Your task to perform on an android device: When is my next meeting? Image 0: 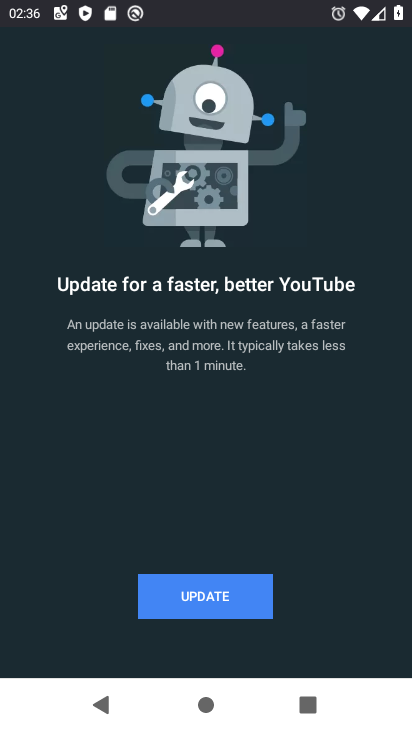
Step 0: press home button
Your task to perform on an android device: When is my next meeting? Image 1: 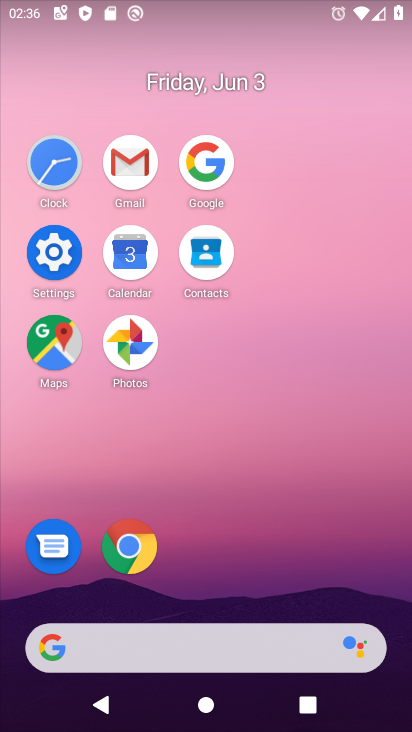
Step 1: click (118, 267)
Your task to perform on an android device: When is my next meeting? Image 2: 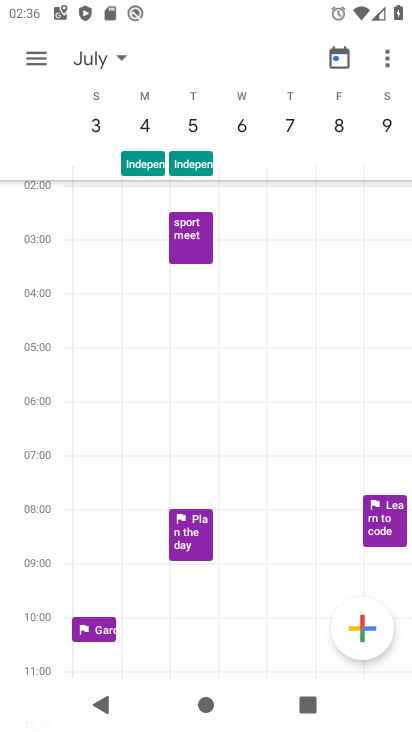
Step 2: click (146, 123)
Your task to perform on an android device: When is my next meeting? Image 3: 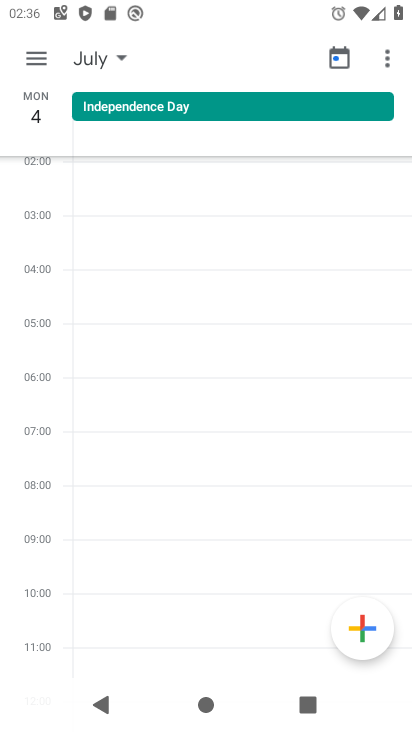
Step 3: click (95, 64)
Your task to perform on an android device: When is my next meeting? Image 4: 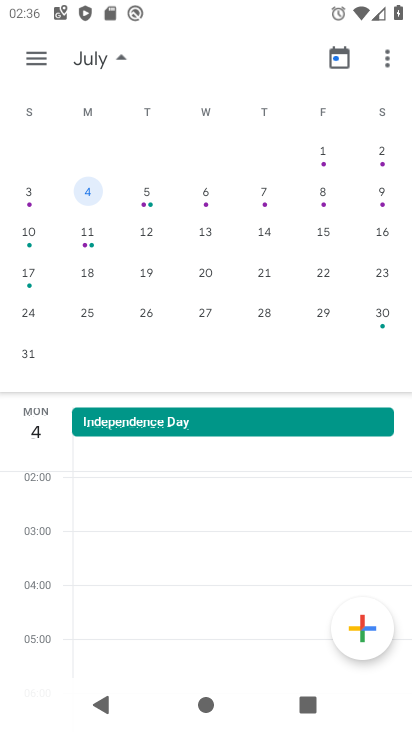
Step 4: drag from (39, 217) to (372, 276)
Your task to perform on an android device: When is my next meeting? Image 5: 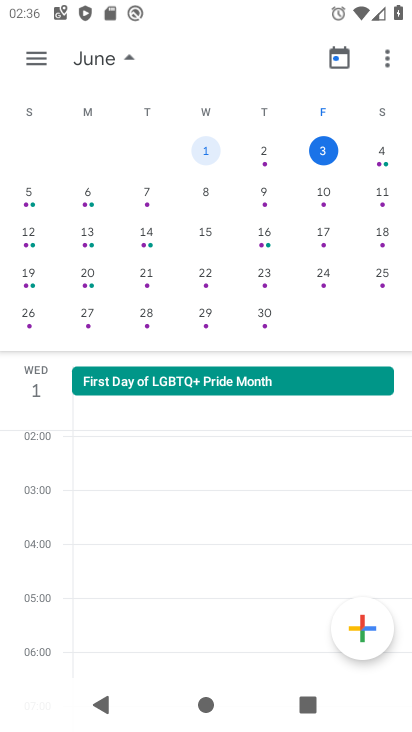
Step 5: drag from (60, 213) to (187, 231)
Your task to perform on an android device: When is my next meeting? Image 6: 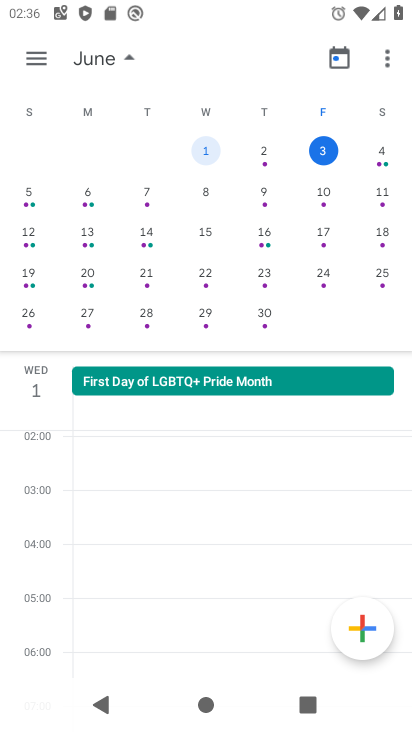
Step 6: click (373, 152)
Your task to perform on an android device: When is my next meeting? Image 7: 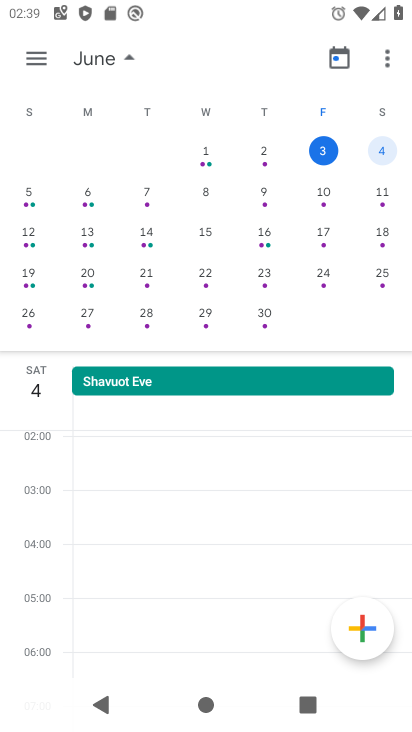
Step 7: task complete